Your task to perform on an android device: Search for pizza restaurants on Maps Image 0: 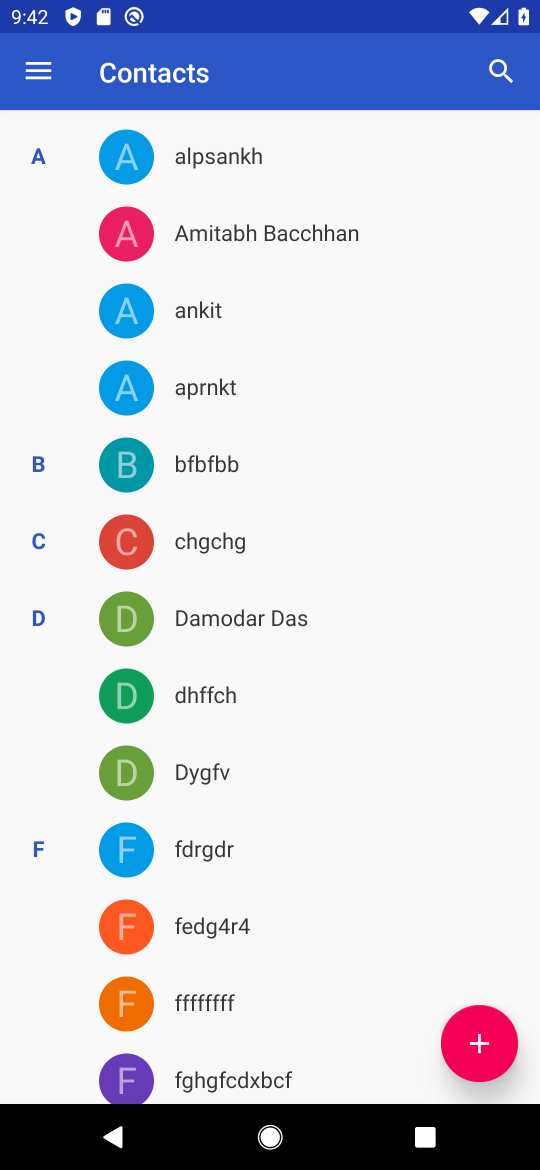
Step 0: press home button
Your task to perform on an android device: Search for pizza restaurants on Maps Image 1: 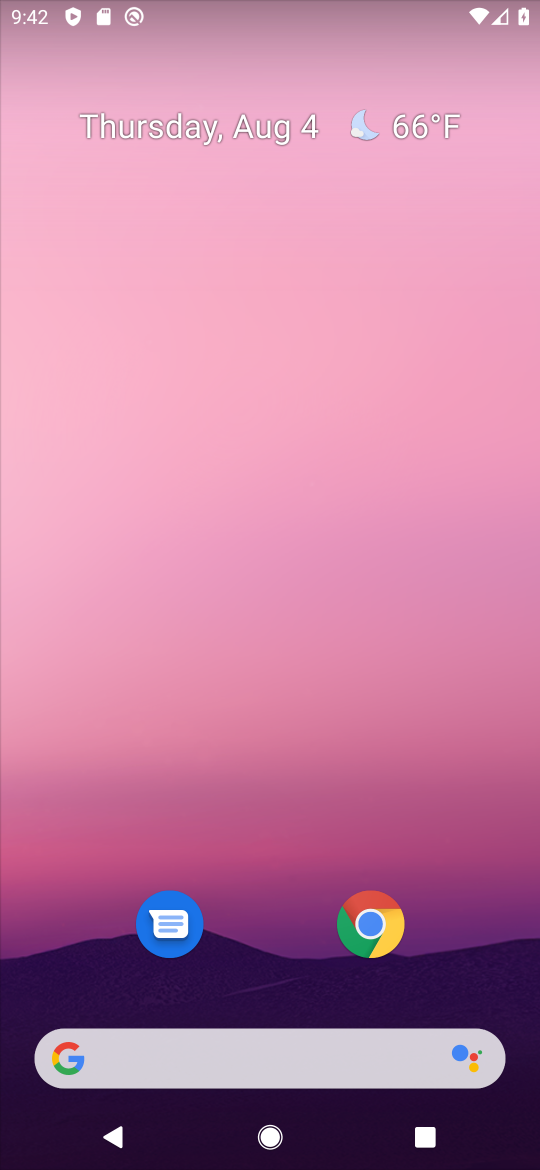
Step 1: drag from (280, 879) to (353, 334)
Your task to perform on an android device: Search for pizza restaurants on Maps Image 2: 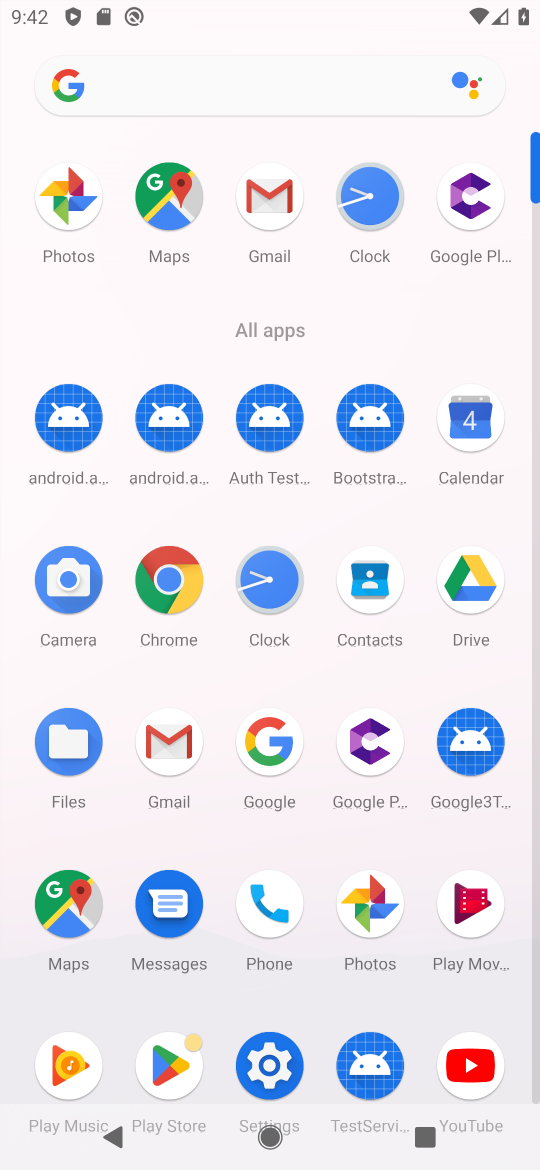
Step 2: click (49, 888)
Your task to perform on an android device: Search for pizza restaurants on Maps Image 3: 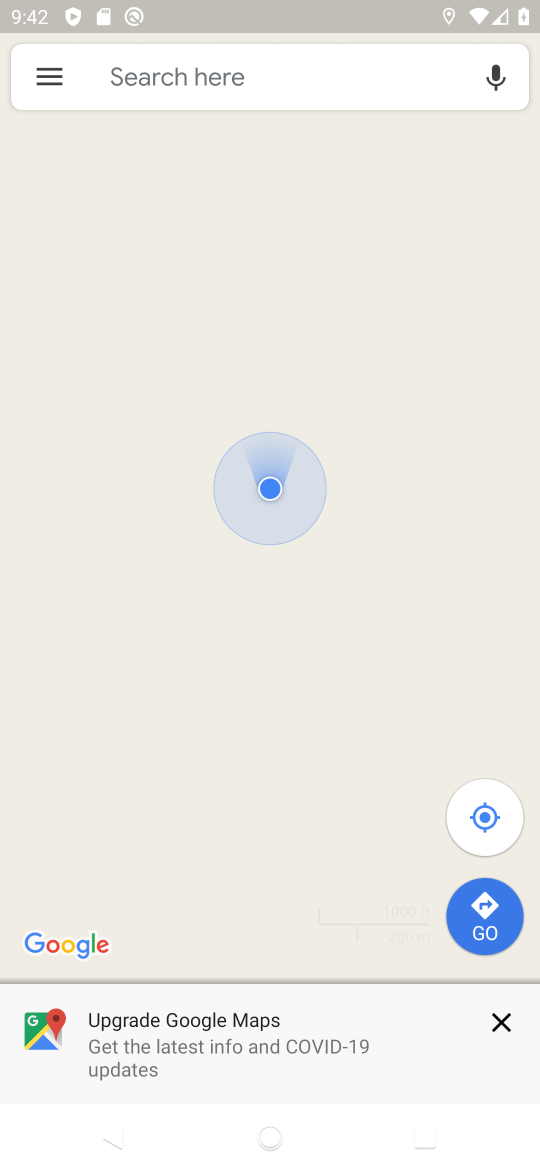
Step 3: click (194, 79)
Your task to perform on an android device: Search for pizza restaurants on Maps Image 4: 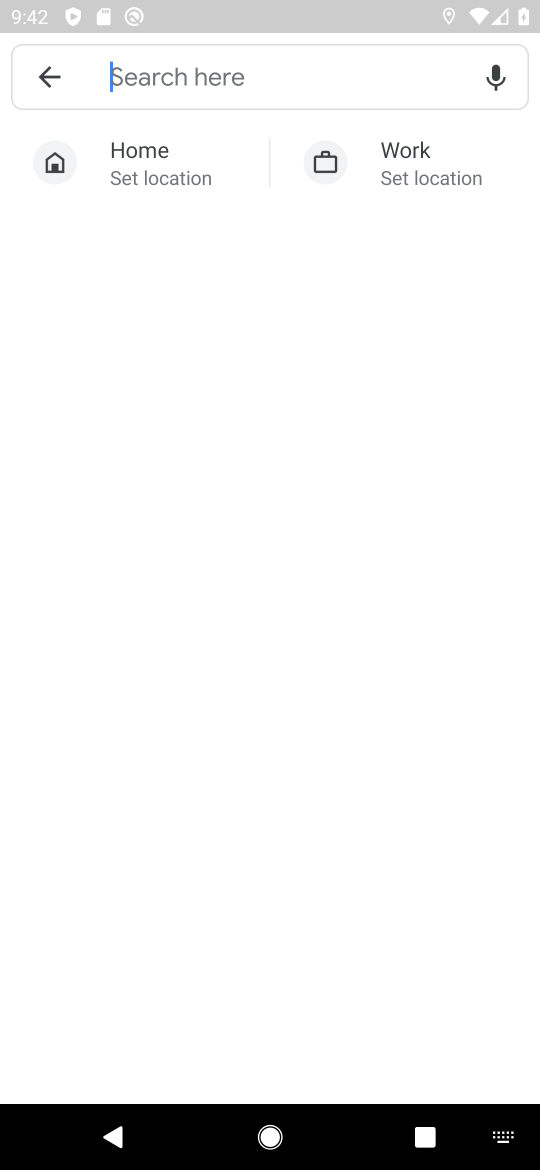
Step 4: type " pizza restaurants "
Your task to perform on an android device: Search for pizza restaurants on Maps Image 5: 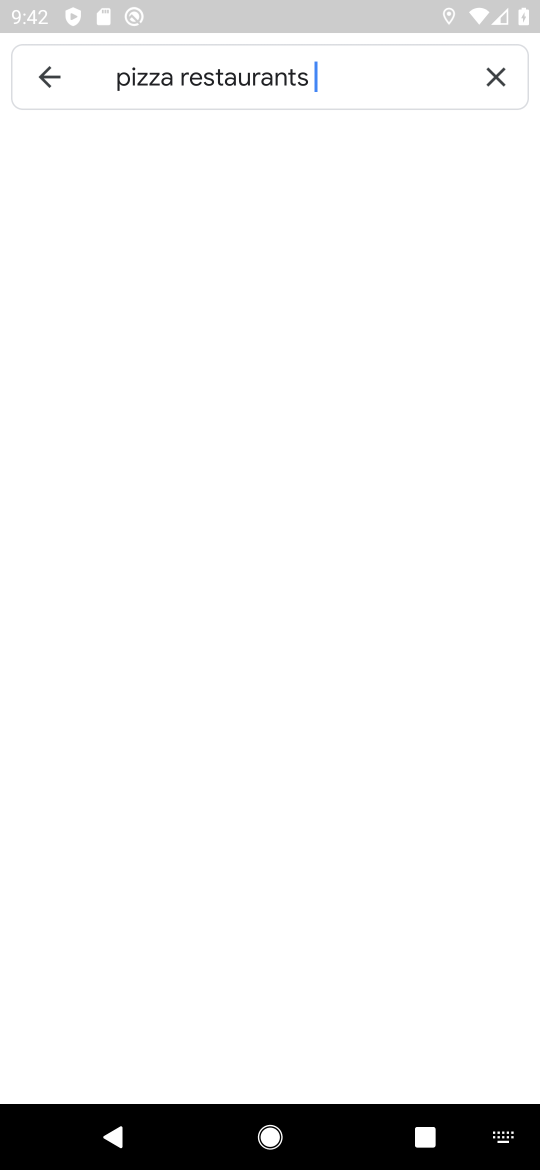
Step 5: press enter
Your task to perform on an android device: Search for pizza restaurants on Maps Image 6: 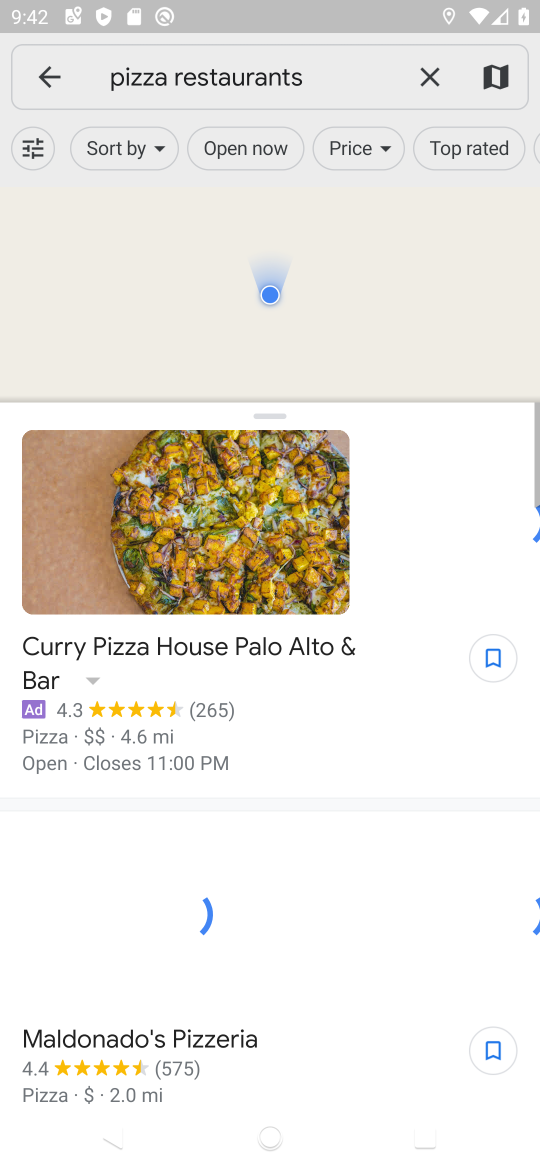
Step 6: task complete